Your task to perform on an android device: Go to notification settings Image 0: 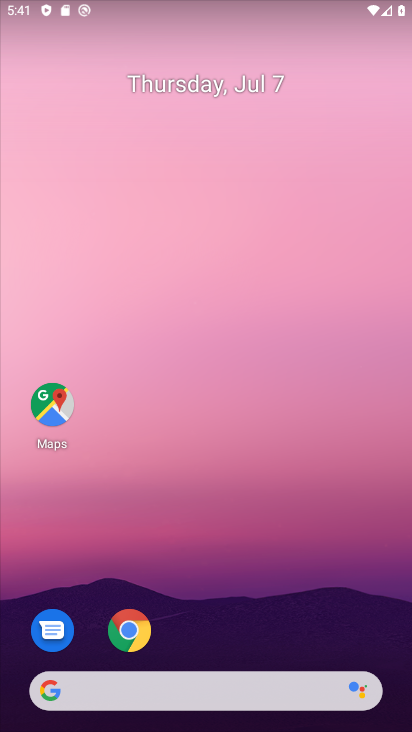
Step 0: drag from (206, 574) to (236, 27)
Your task to perform on an android device: Go to notification settings Image 1: 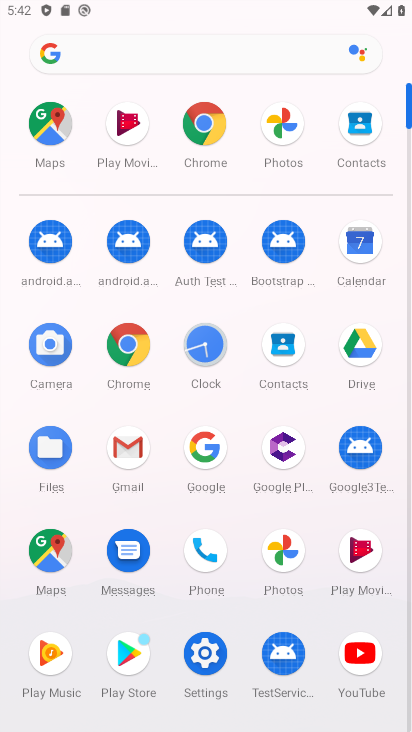
Step 1: click (200, 655)
Your task to perform on an android device: Go to notification settings Image 2: 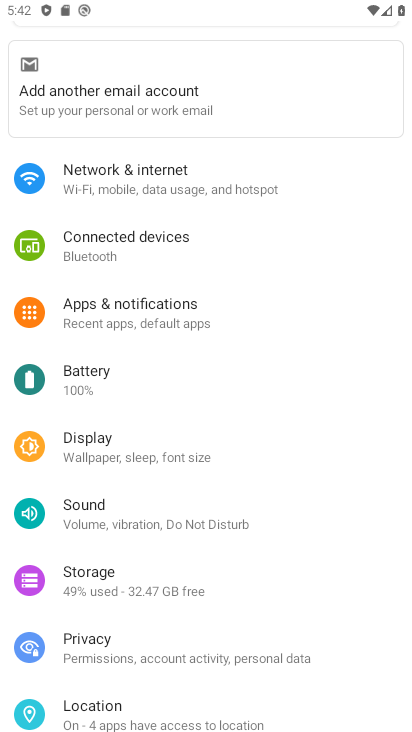
Step 2: click (126, 316)
Your task to perform on an android device: Go to notification settings Image 3: 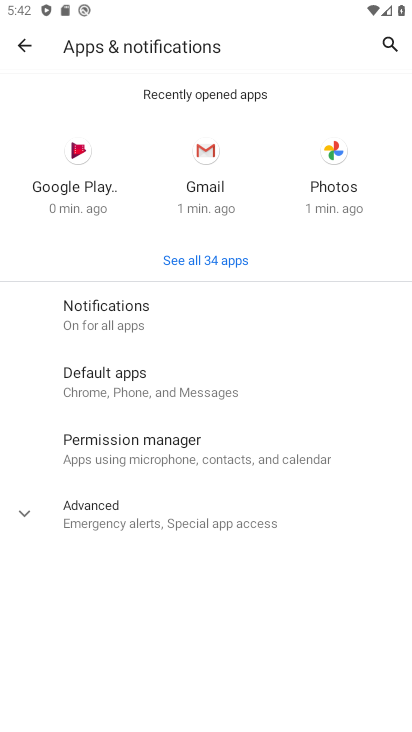
Step 3: click (126, 316)
Your task to perform on an android device: Go to notification settings Image 4: 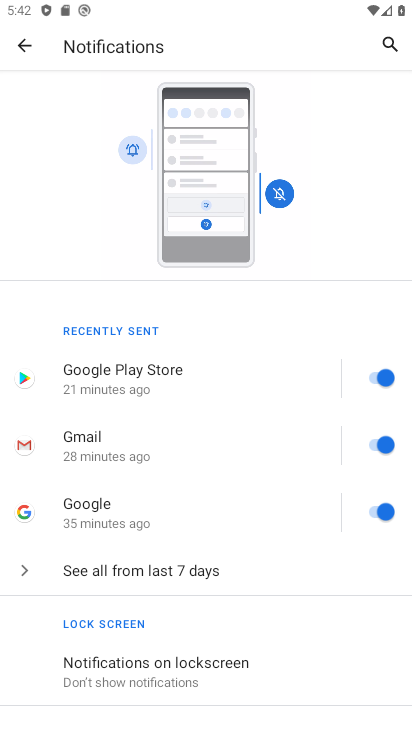
Step 4: task complete